Your task to perform on an android device: turn on showing notifications on the lock screen Image 0: 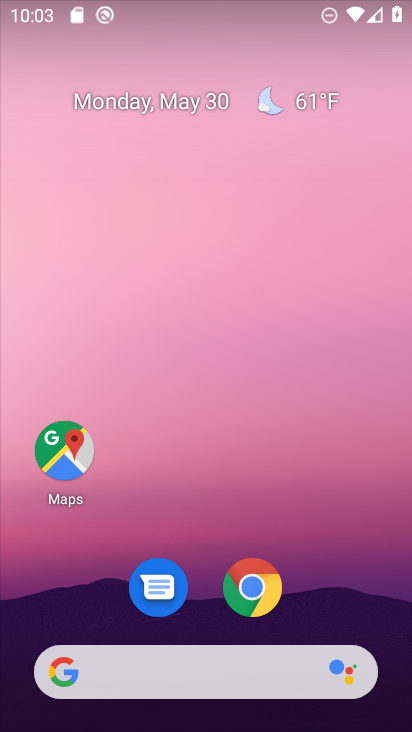
Step 0: drag from (217, 625) to (175, 77)
Your task to perform on an android device: turn on showing notifications on the lock screen Image 1: 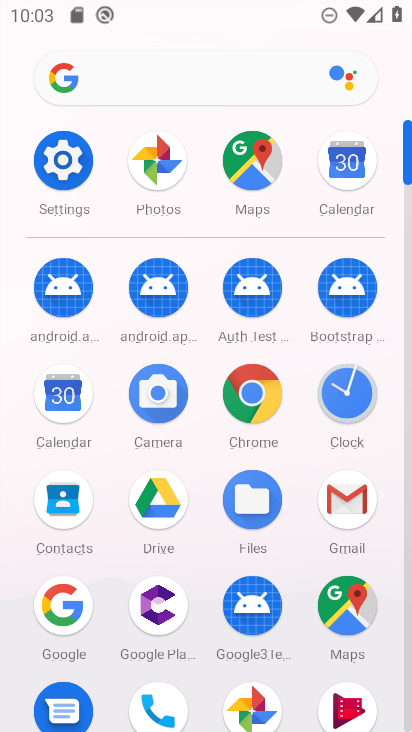
Step 1: click (74, 174)
Your task to perform on an android device: turn on showing notifications on the lock screen Image 2: 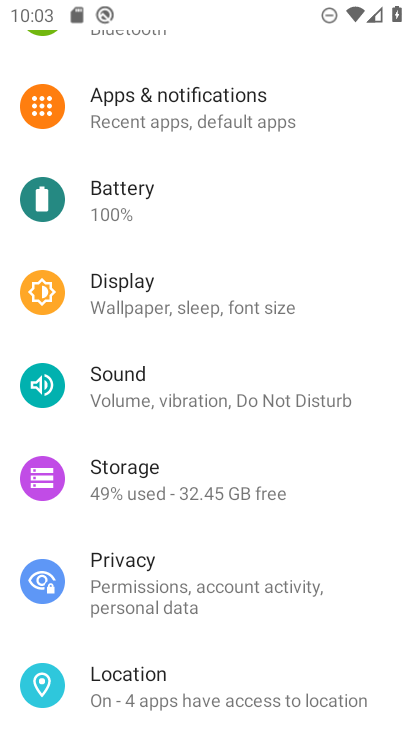
Step 2: click (183, 109)
Your task to perform on an android device: turn on showing notifications on the lock screen Image 3: 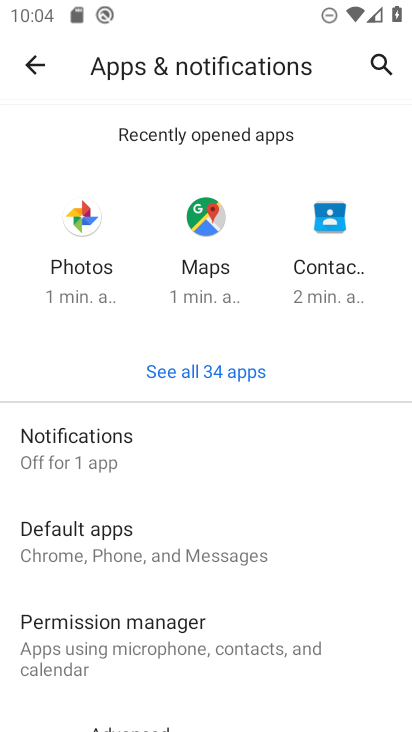
Step 3: click (85, 451)
Your task to perform on an android device: turn on showing notifications on the lock screen Image 4: 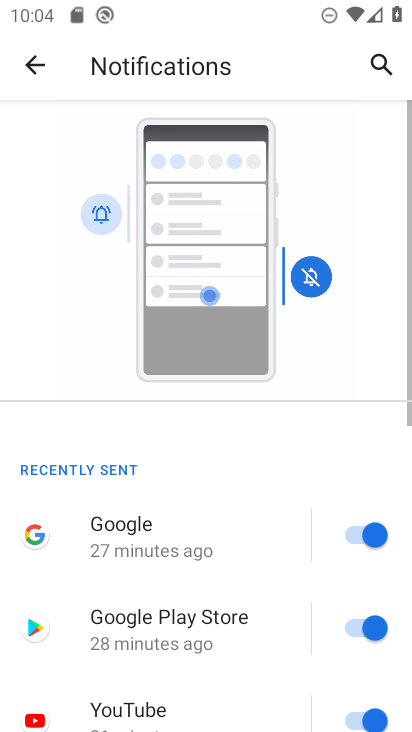
Step 4: drag from (161, 666) to (134, 97)
Your task to perform on an android device: turn on showing notifications on the lock screen Image 5: 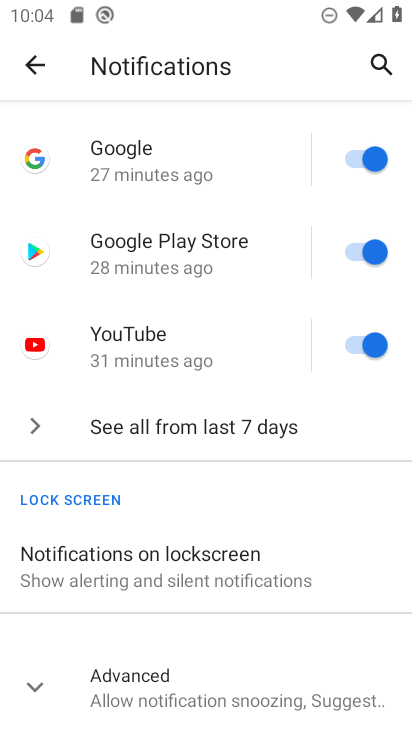
Step 5: click (238, 572)
Your task to perform on an android device: turn on showing notifications on the lock screen Image 6: 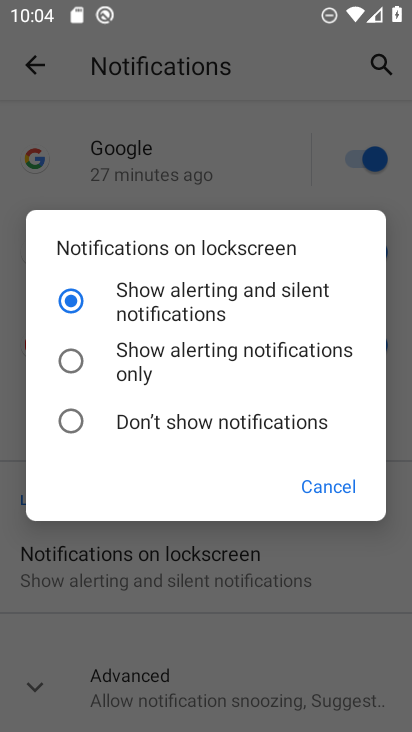
Step 6: task complete